Your task to perform on an android device: turn on improve location accuracy Image 0: 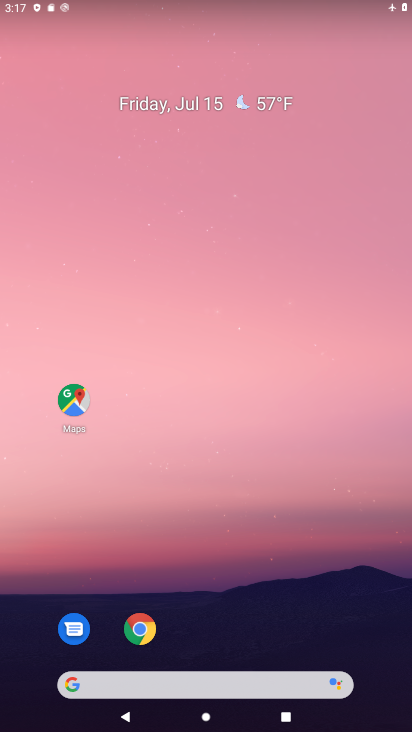
Step 0: drag from (254, 710) to (179, 168)
Your task to perform on an android device: turn on improve location accuracy Image 1: 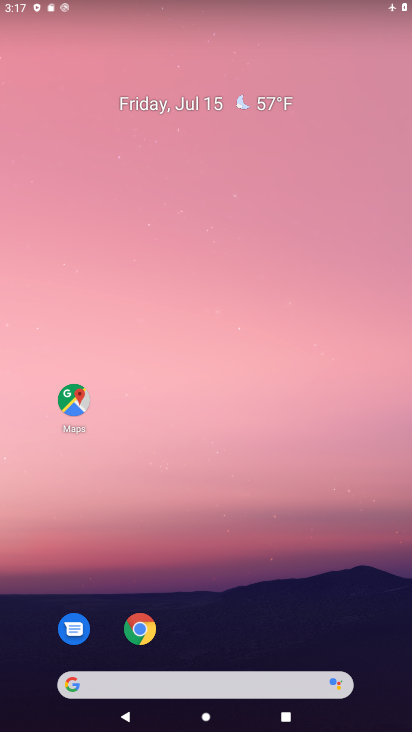
Step 1: drag from (194, 670) to (119, 159)
Your task to perform on an android device: turn on improve location accuracy Image 2: 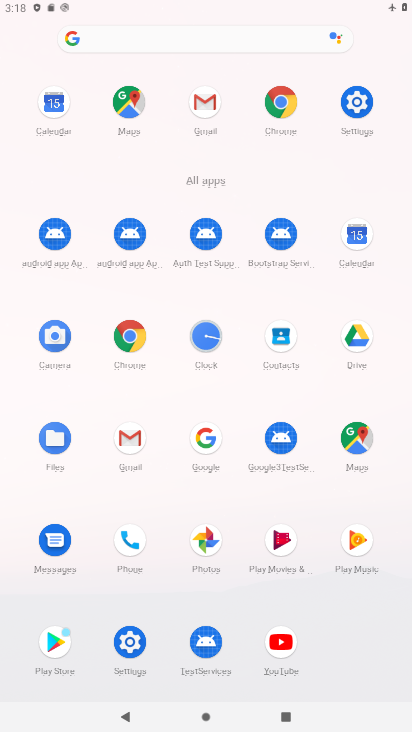
Step 2: click (353, 108)
Your task to perform on an android device: turn on improve location accuracy Image 3: 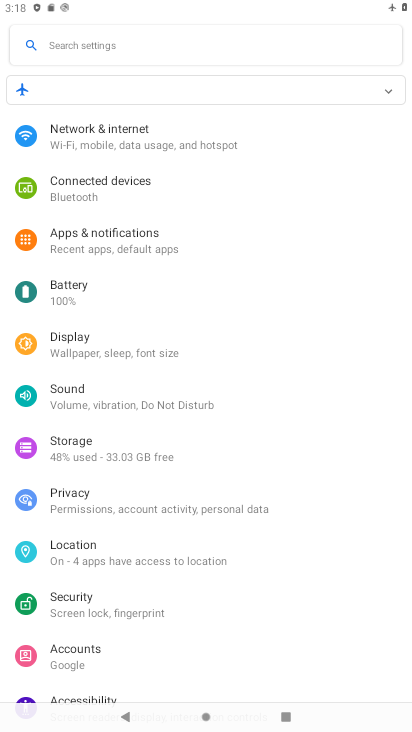
Step 3: click (78, 556)
Your task to perform on an android device: turn on improve location accuracy Image 4: 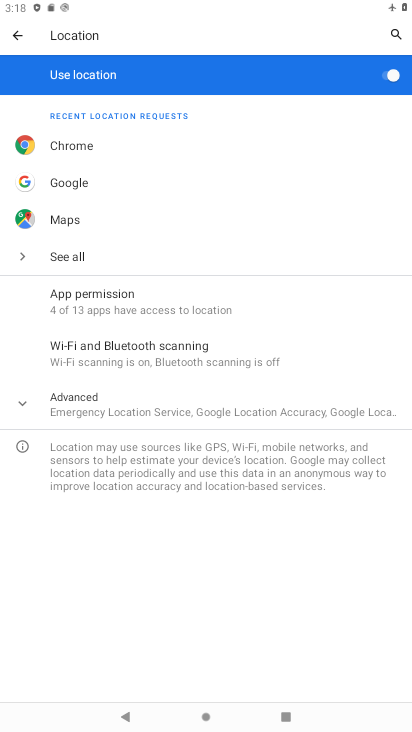
Step 4: click (94, 413)
Your task to perform on an android device: turn on improve location accuracy Image 5: 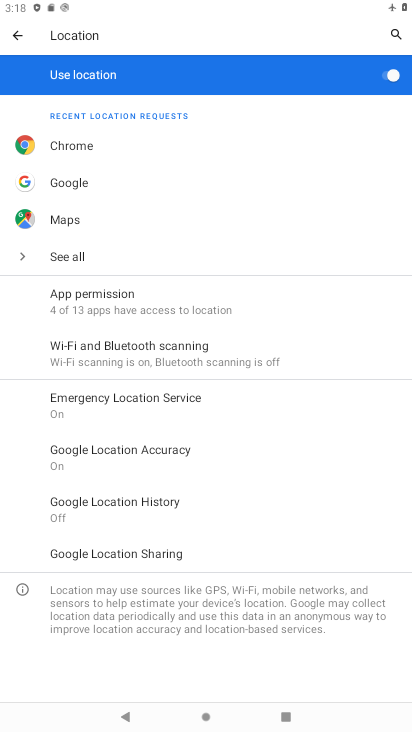
Step 5: click (169, 451)
Your task to perform on an android device: turn on improve location accuracy Image 6: 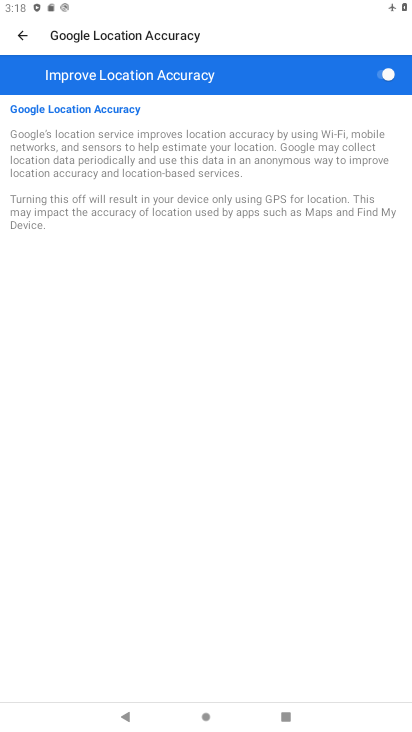
Step 6: task complete